Your task to perform on an android device: Open Google Chrome and open the bookmarks view Image 0: 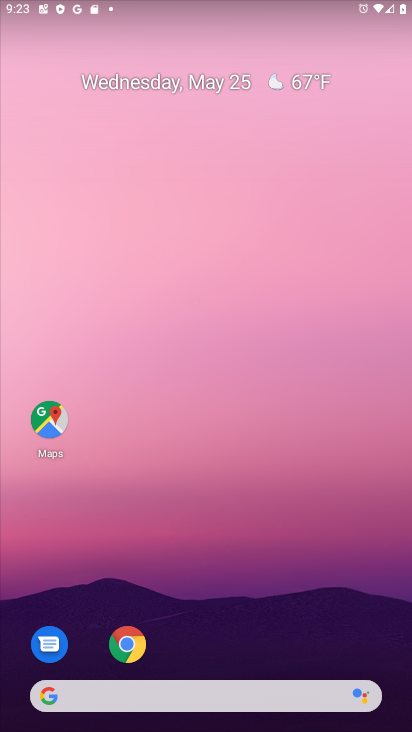
Step 0: press home button
Your task to perform on an android device: Open Google Chrome and open the bookmarks view Image 1: 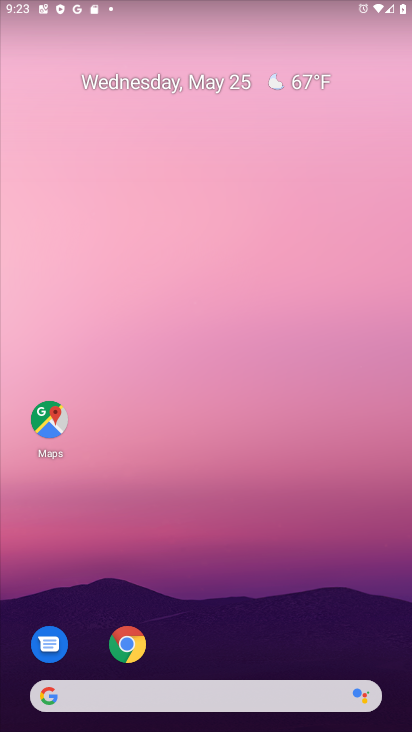
Step 1: drag from (212, 660) to (207, 142)
Your task to perform on an android device: Open Google Chrome and open the bookmarks view Image 2: 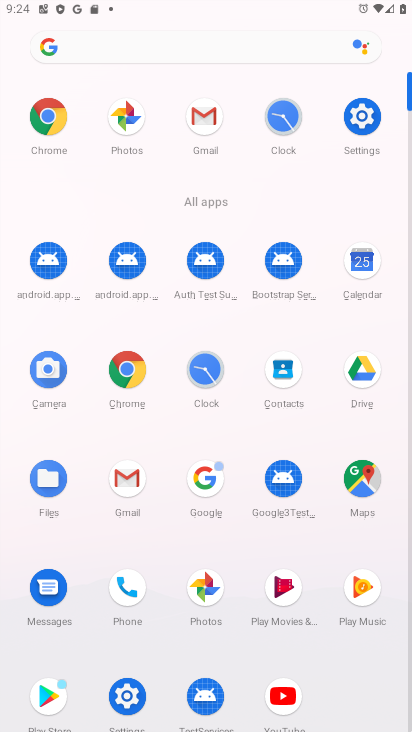
Step 2: click (47, 109)
Your task to perform on an android device: Open Google Chrome and open the bookmarks view Image 3: 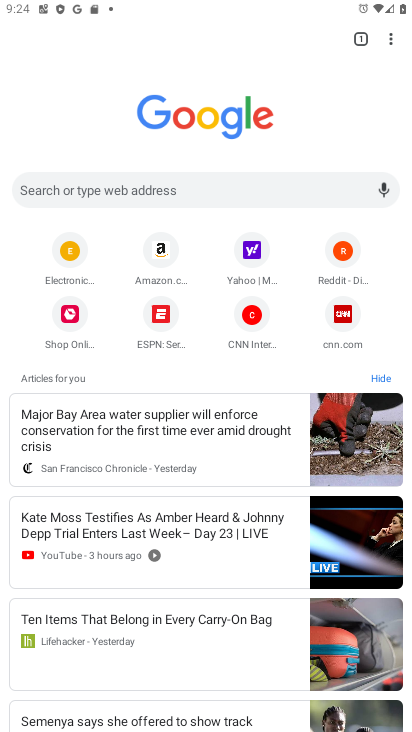
Step 3: click (389, 33)
Your task to perform on an android device: Open Google Chrome and open the bookmarks view Image 4: 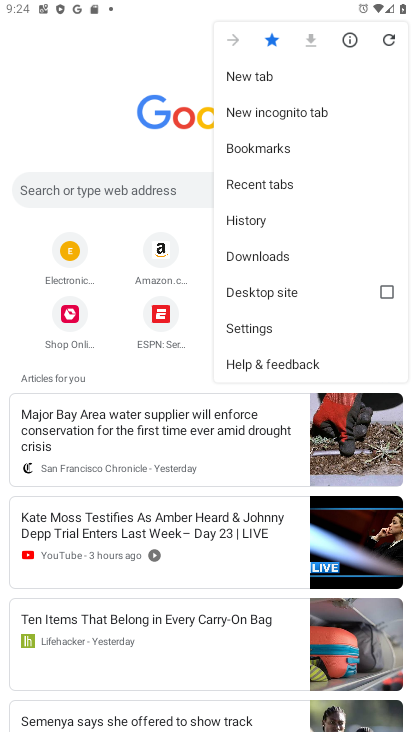
Step 4: click (293, 140)
Your task to perform on an android device: Open Google Chrome and open the bookmarks view Image 5: 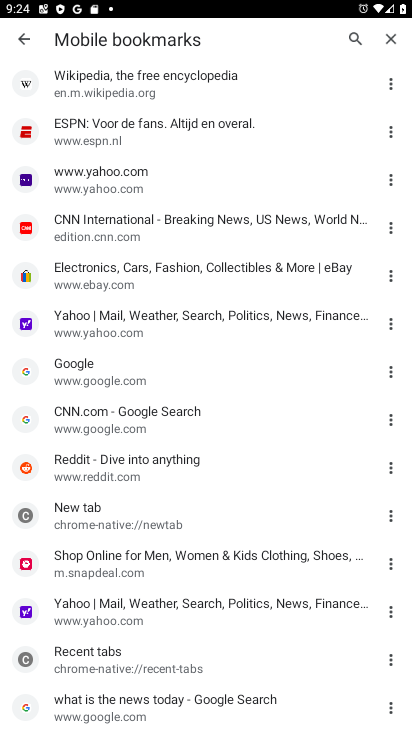
Step 5: click (167, 611)
Your task to perform on an android device: Open Google Chrome and open the bookmarks view Image 6: 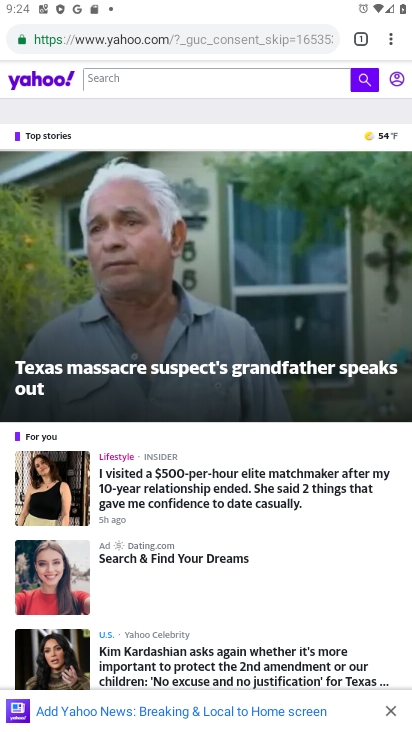
Step 6: task complete